Your task to perform on an android device: turn pop-ups off in chrome Image 0: 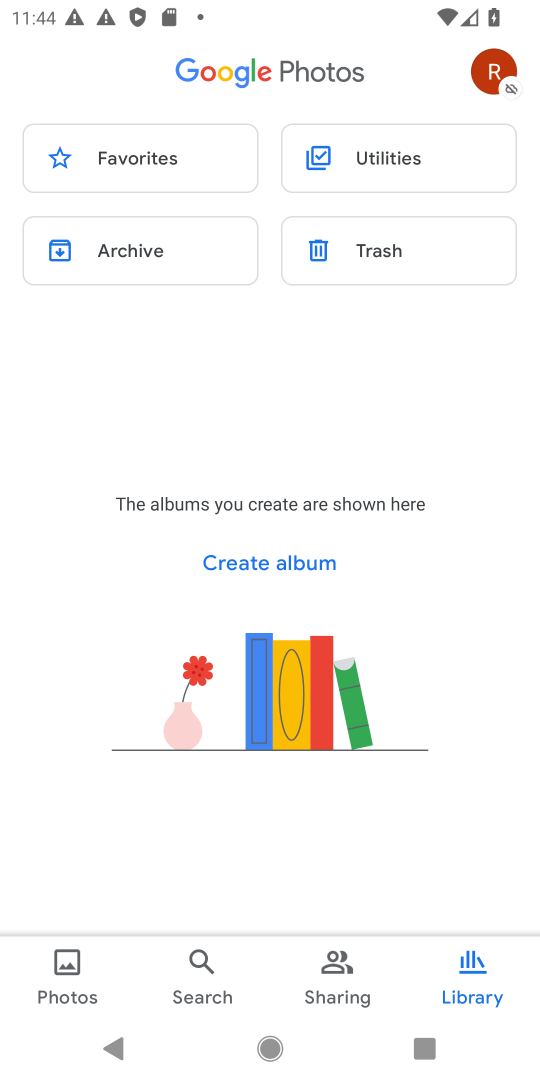
Step 0: press home button
Your task to perform on an android device: turn pop-ups off in chrome Image 1: 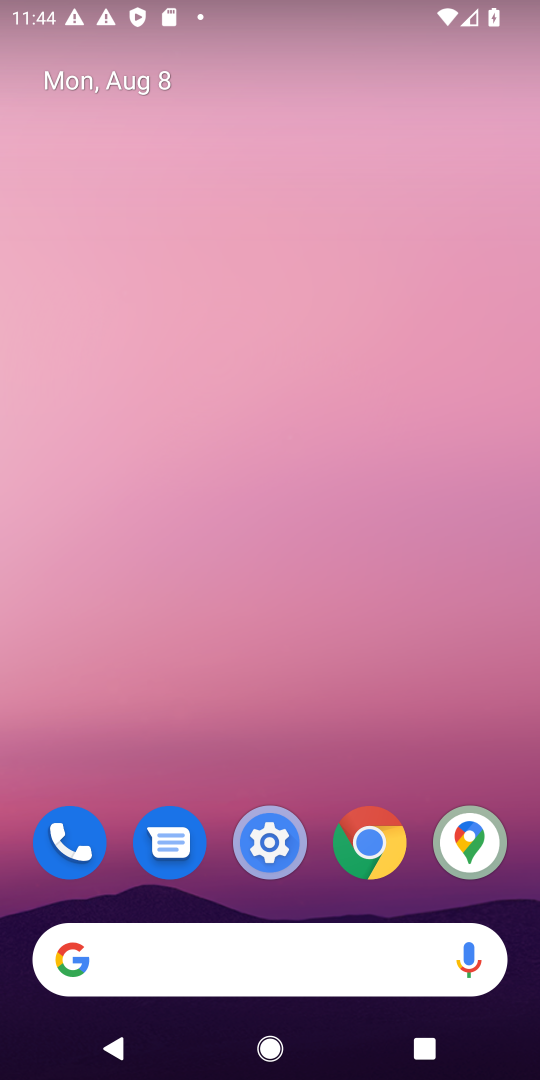
Step 1: click (351, 828)
Your task to perform on an android device: turn pop-ups off in chrome Image 2: 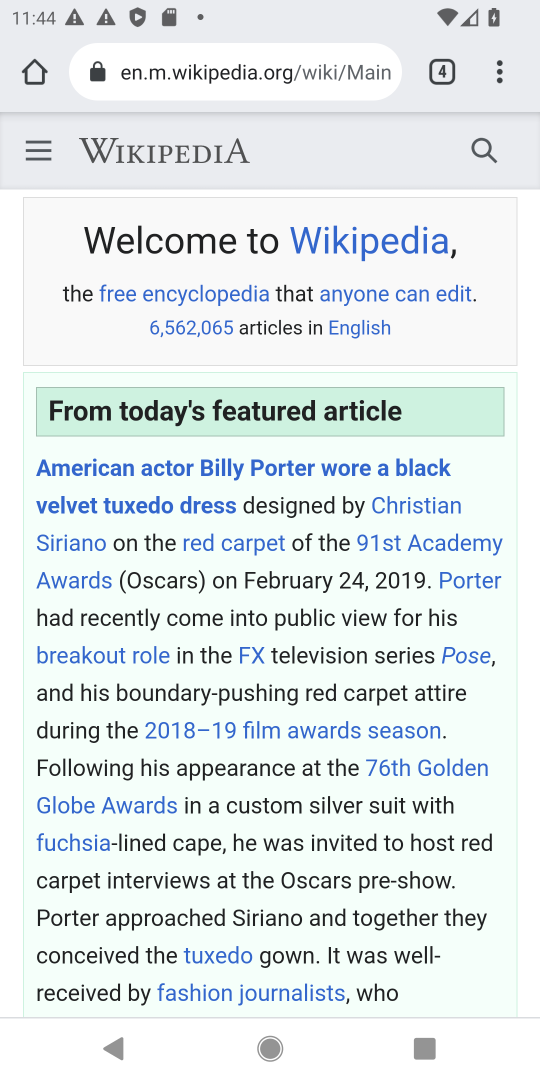
Step 2: click (501, 76)
Your task to perform on an android device: turn pop-ups off in chrome Image 3: 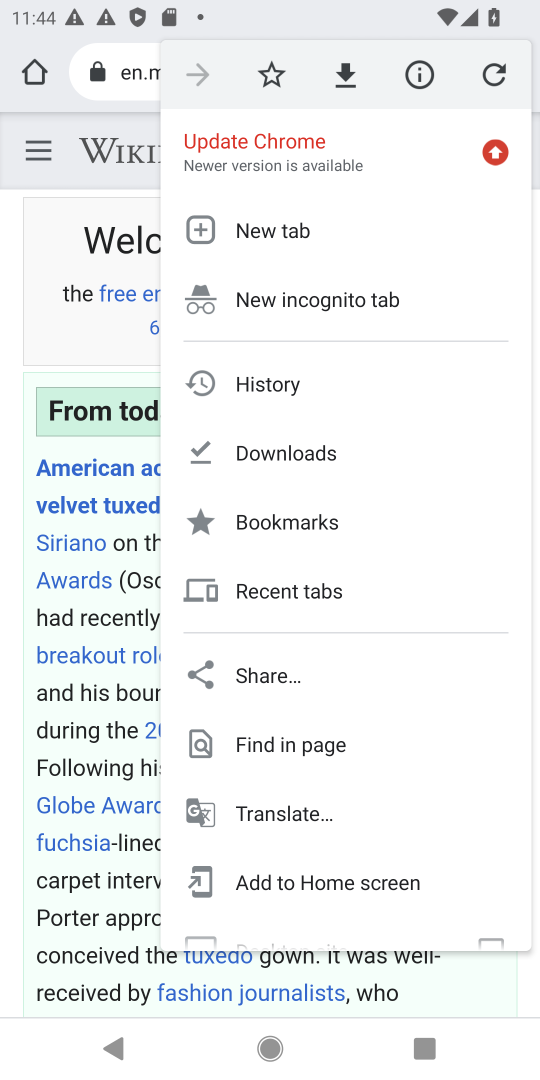
Step 3: drag from (400, 755) to (425, 512)
Your task to perform on an android device: turn pop-ups off in chrome Image 4: 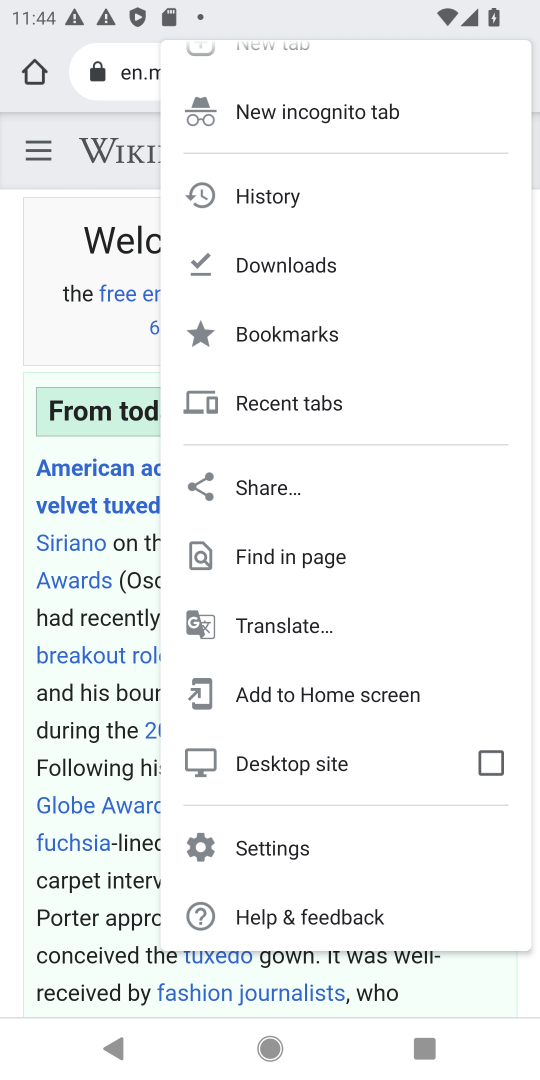
Step 4: click (302, 837)
Your task to perform on an android device: turn pop-ups off in chrome Image 5: 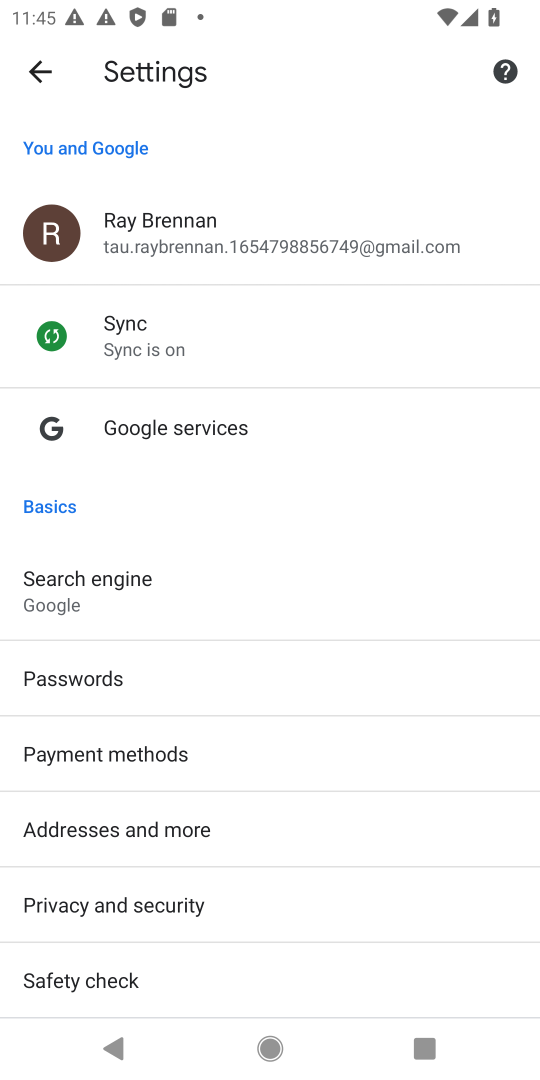
Step 5: drag from (250, 734) to (226, 47)
Your task to perform on an android device: turn pop-ups off in chrome Image 6: 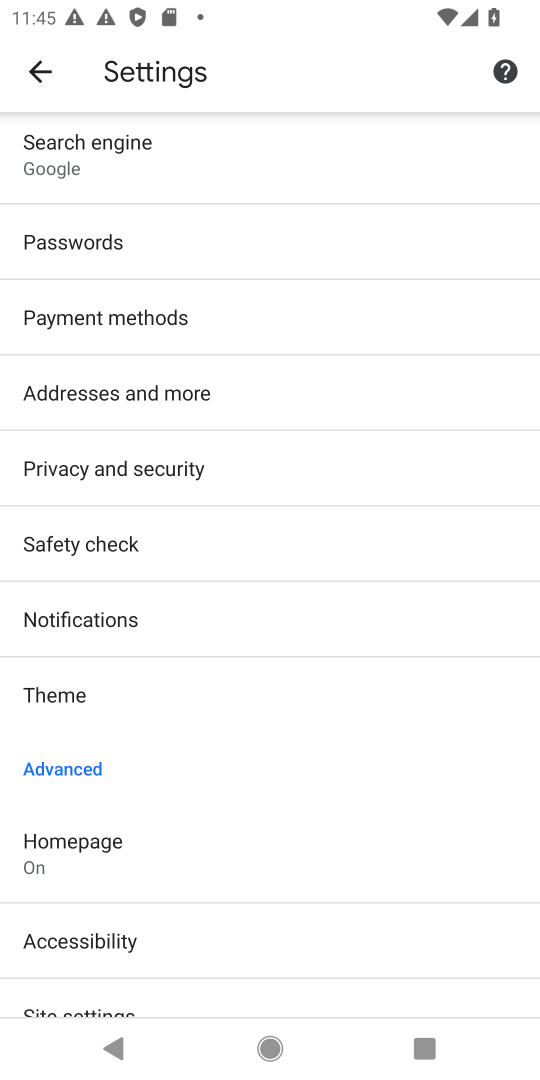
Step 6: click (56, 1003)
Your task to perform on an android device: turn pop-ups off in chrome Image 7: 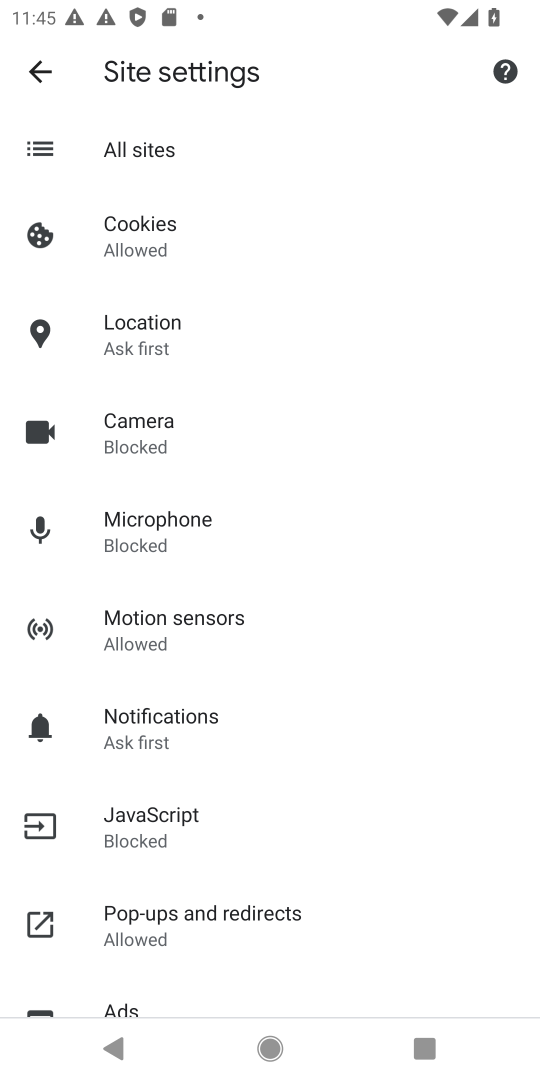
Step 7: click (139, 910)
Your task to perform on an android device: turn pop-ups off in chrome Image 8: 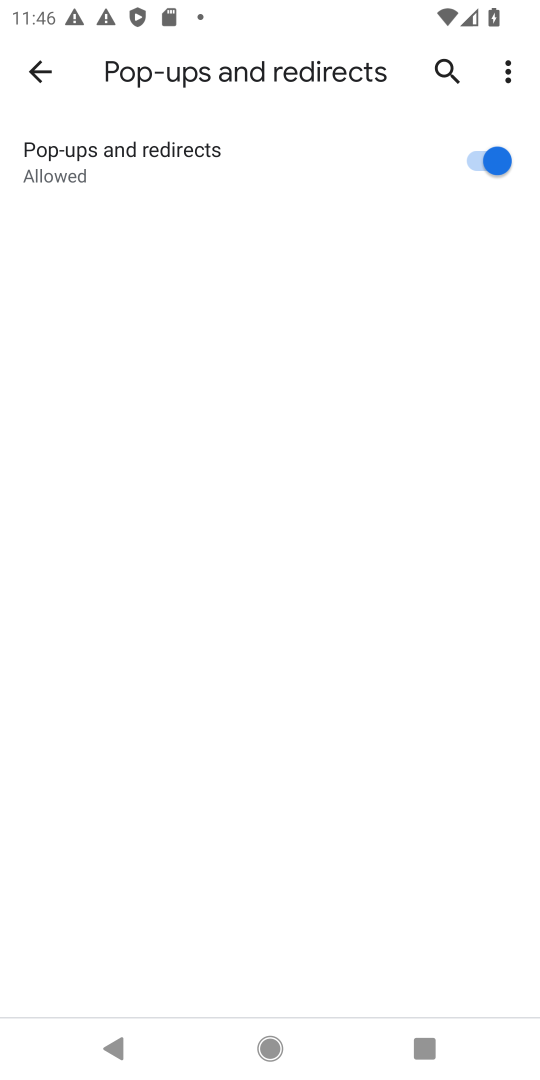
Step 8: click (410, 11)
Your task to perform on an android device: turn pop-ups off in chrome Image 9: 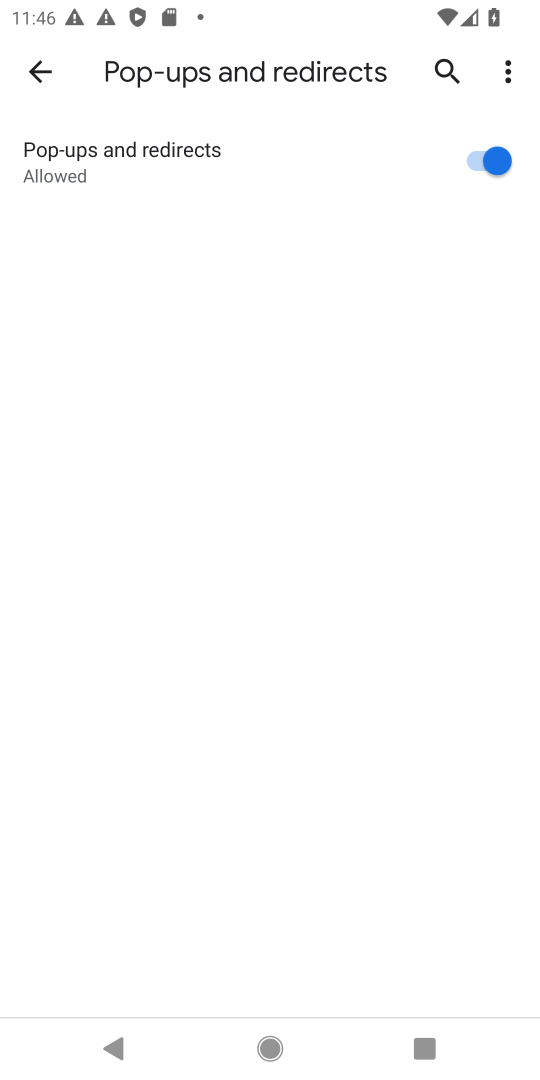
Step 9: click (488, 158)
Your task to perform on an android device: turn pop-ups off in chrome Image 10: 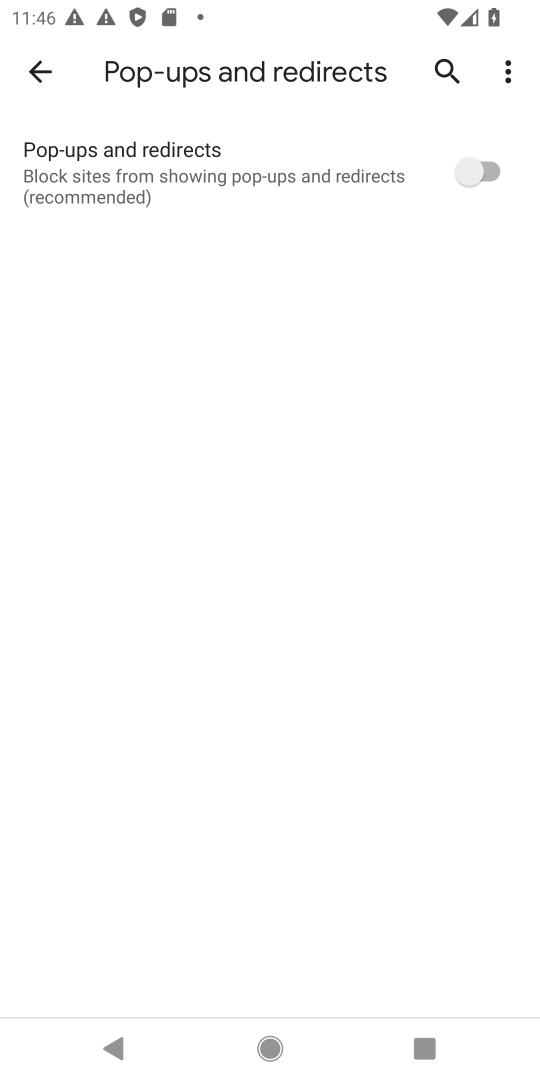
Step 10: task complete